Your task to perform on an android device: set default search engine in the chrome app Image 0: 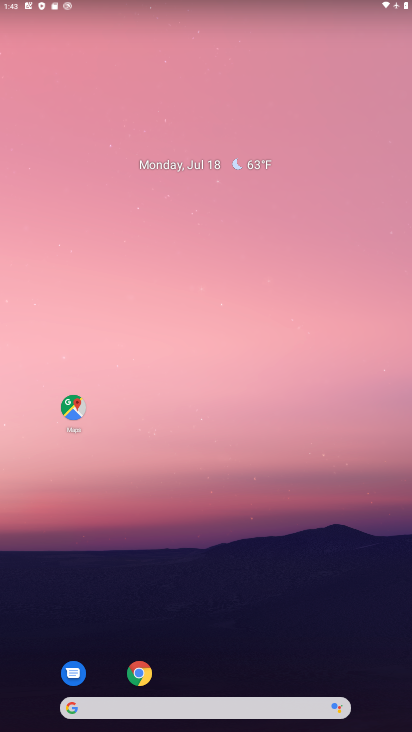
Step 0: drag from (253, 647) to (229, 140)
Your task to perform on an android device: set default search engine in the chrome app Image 1: 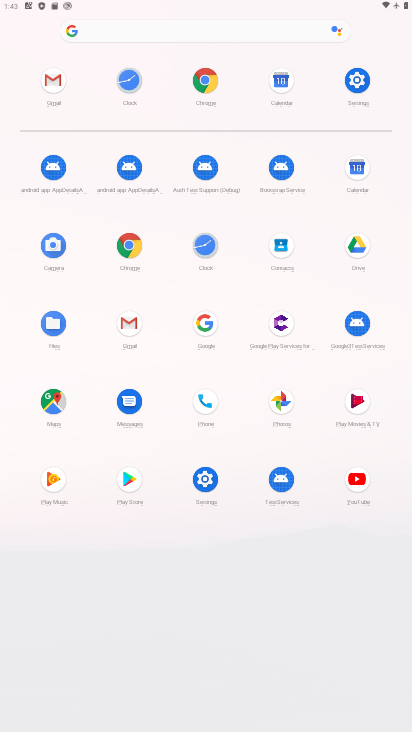
Step 1: click (127, 243)
Your task to perform on an android device: set default search engine in the chrome app Image 2: 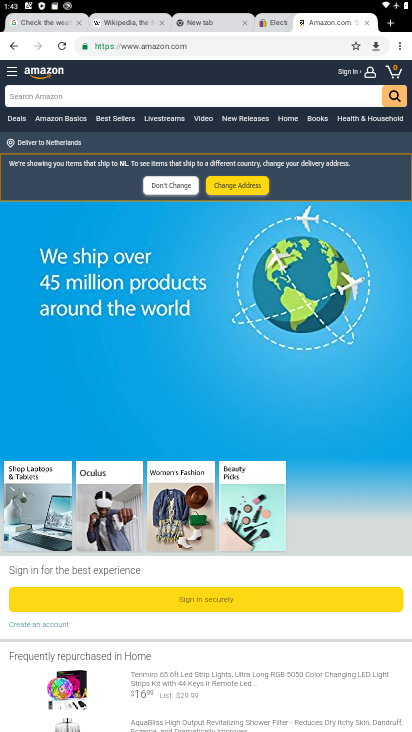
Step 2: click (400, 40)
Your task to perform on an android device: set default search engine in the chrome app Image 3: 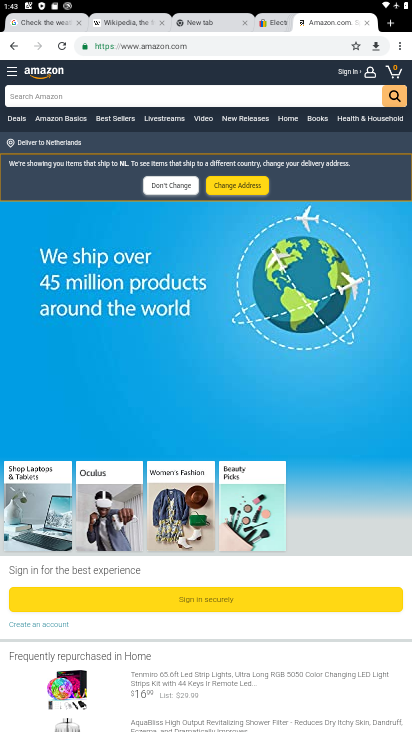
Step 3: click (400, 47)
Your task to perform on an android device: set default search engine in the chrome app Image 4: 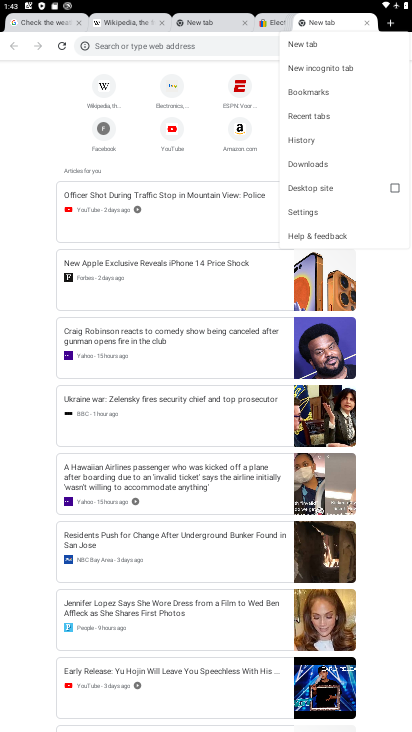
Step 4: click (321, 206)
Your task to perform on an android device: set default search engine in the chrome app Image 5: 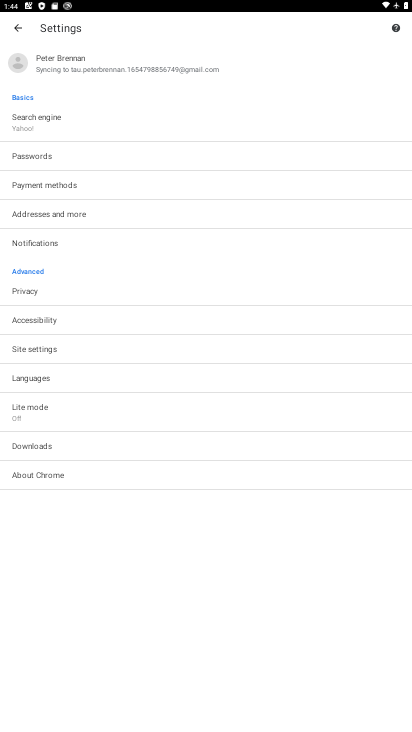
Step 5: click (50, 123)
Your task to perform on an android device: set default search engine in the chrome app Image 6: 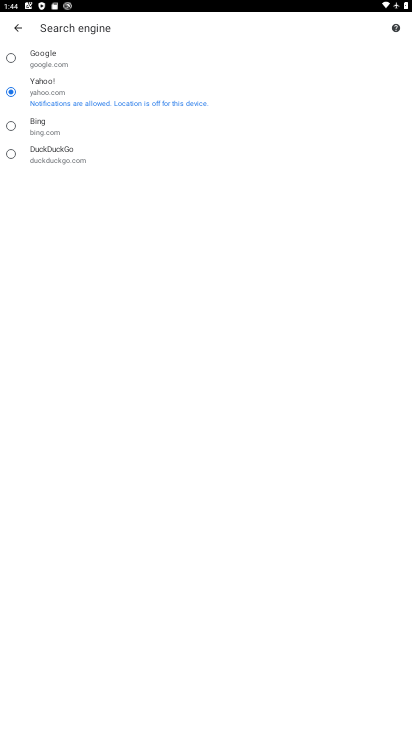
Step 6: click (60, 60)
Your task to perform on an android device: set default search engine in the chrome app Image 7: 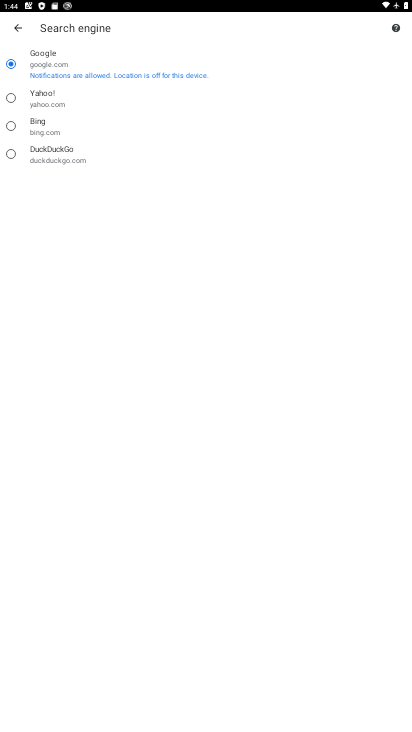
Step 7: task complete